Your task to perform on an android device: turn off data saver in the chrome app Image 0: 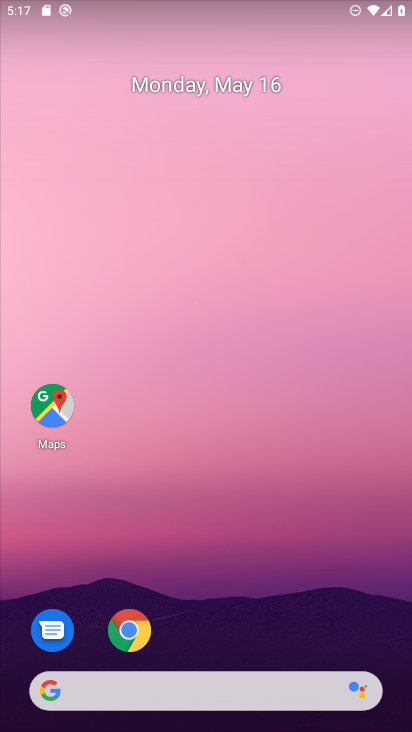
Step 0: click (136, 638)
Your task to perform on an android device: turn off data saver in the chrome app Image 1: 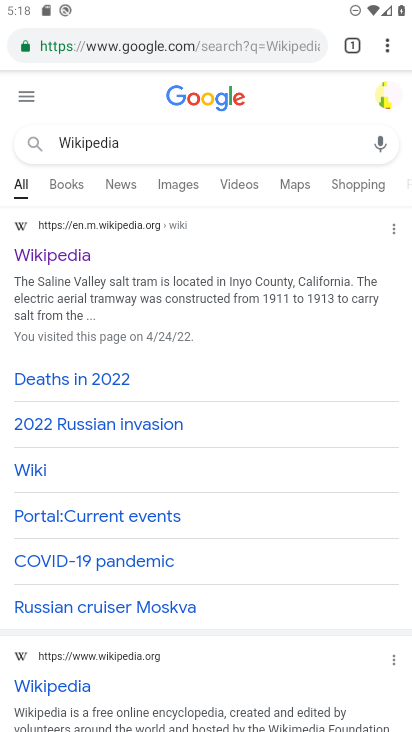
Step 1: drag from (393, 41) to (249, 502)
Your task to perform on an android device: turn off data saver in the chrome app Image 2: 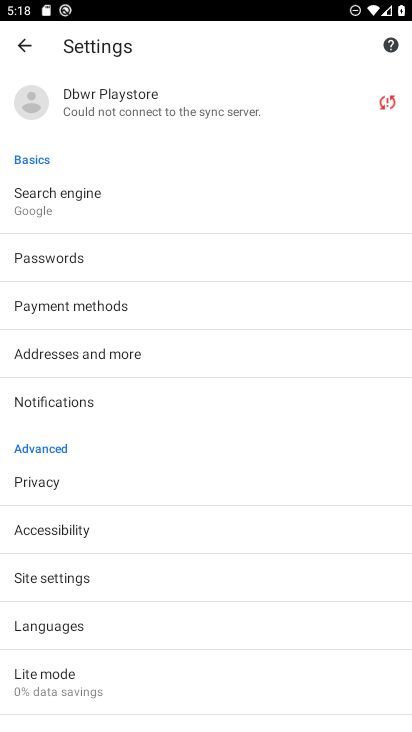
Step 2: click (80, 682)
Your task to perform on an android device: turn off data saver in the chrome app Image 3: 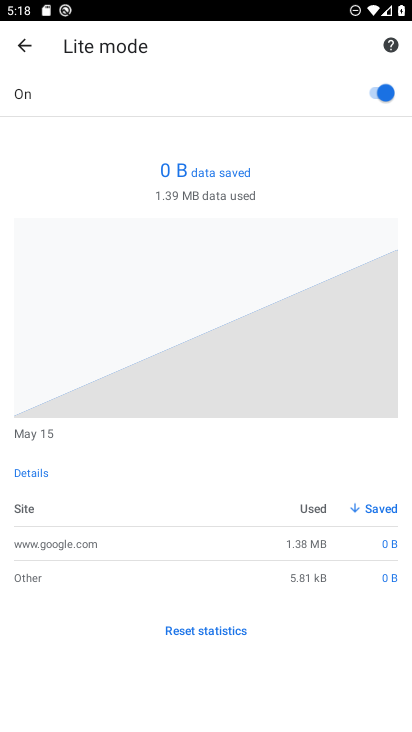
Step 3: click (377, 97)
Your task to perform on an android device: turn off data saver in the chrome app Image 4: 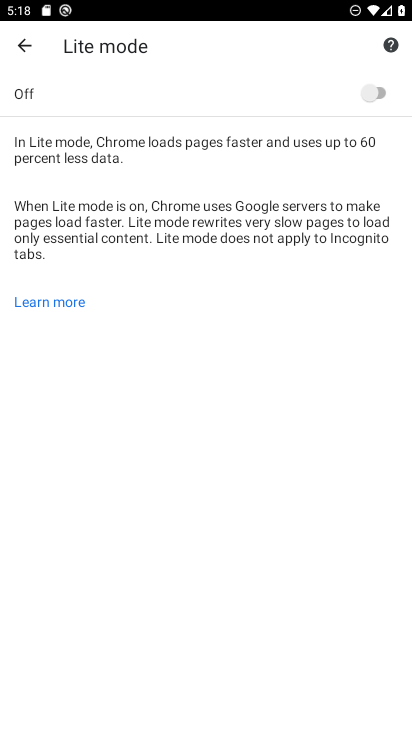
Step 4: task complete